Your task to perform on an android device: turn off smart reply in the gmail app Image 0: 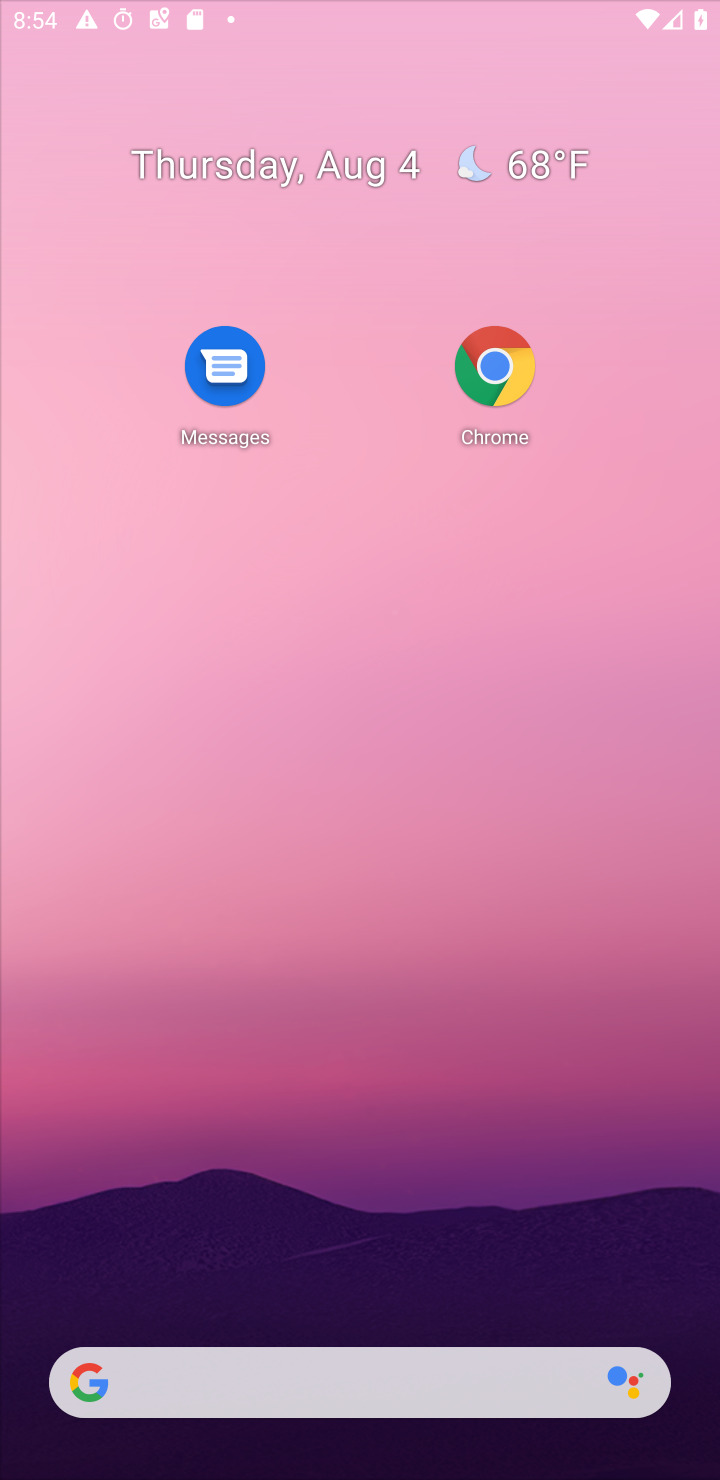
Step 0: press home button
Your task to perform on an android device: turn off smart reply in the gmail app Image 1: 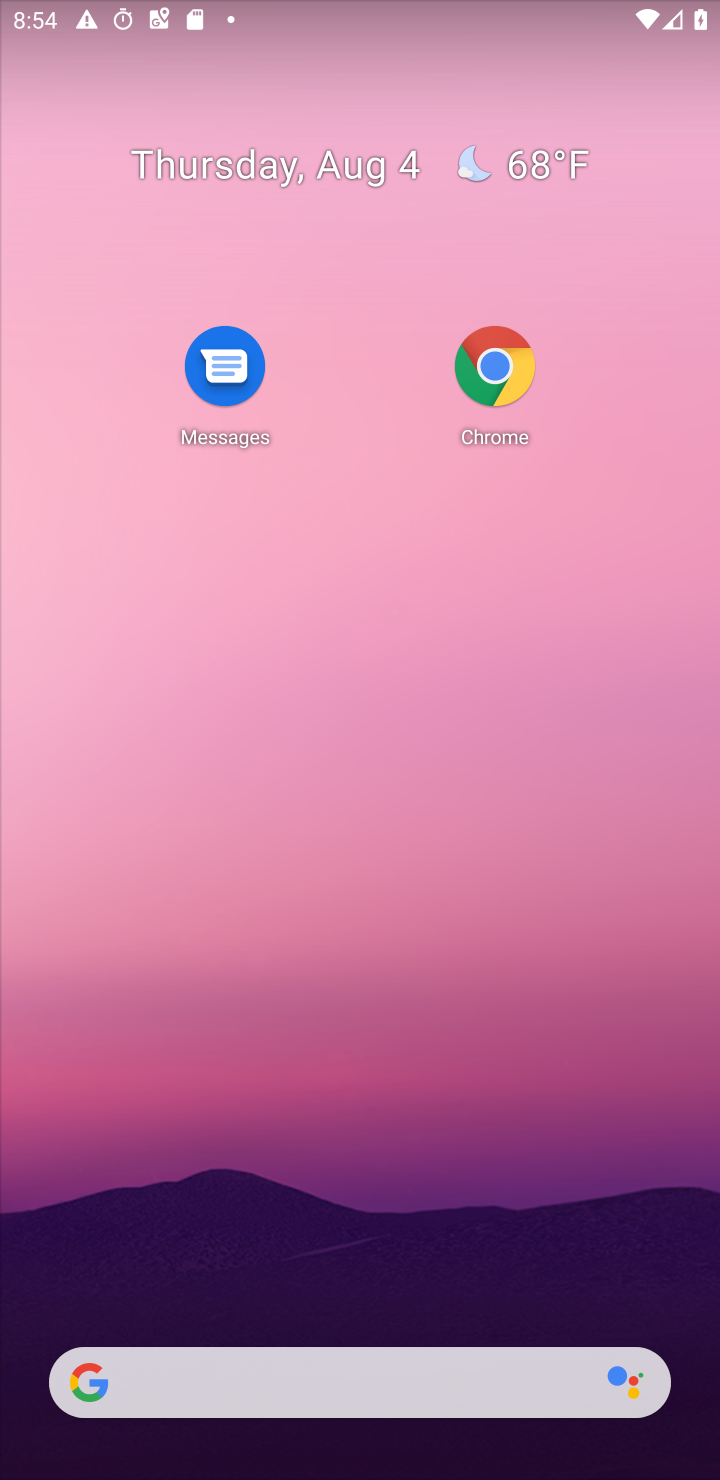
Step 1: drag from (472, 1417) to (385, 404)
Your task to perform on an android device: turn off smart reply in the gmail app Image 2: 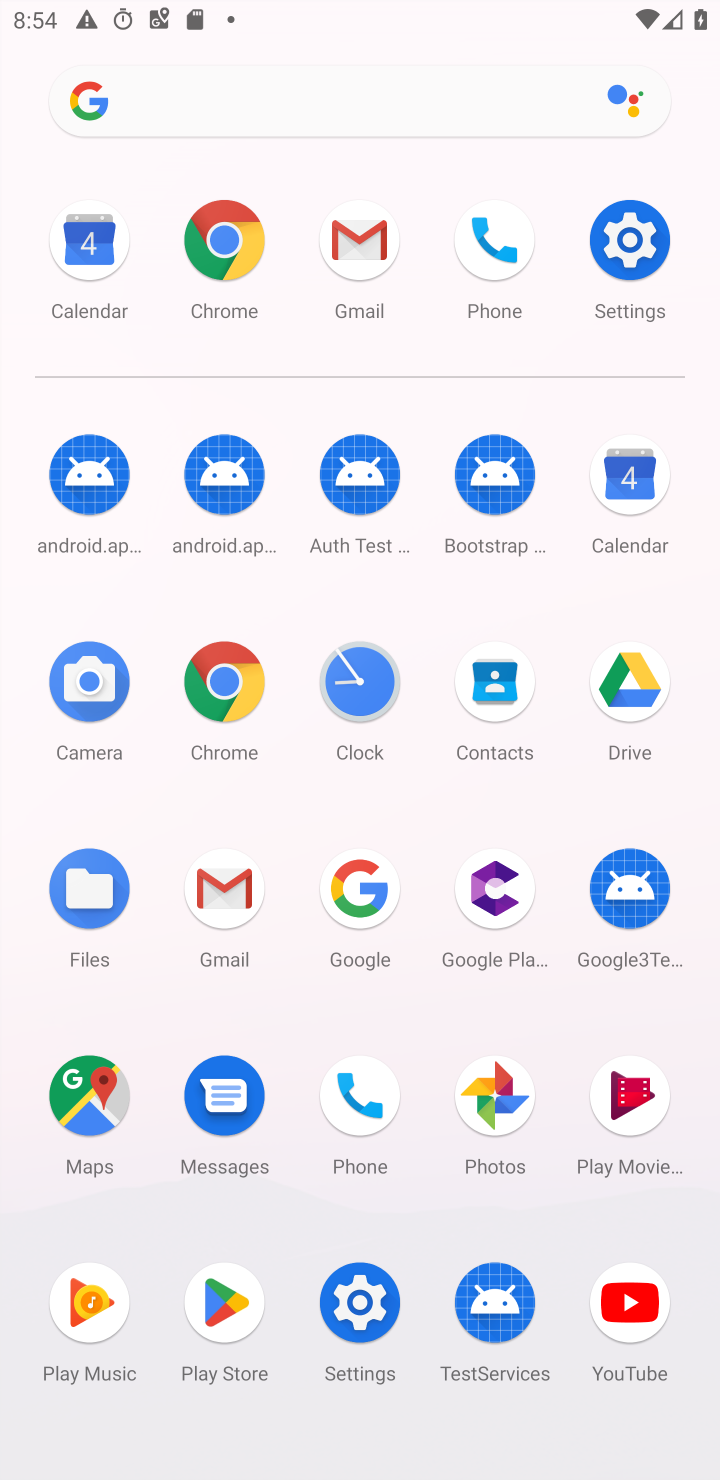
Step 2: click (343, 267)
Your task to perform on an android device: turn off smart reply in the gmail app Image 3: 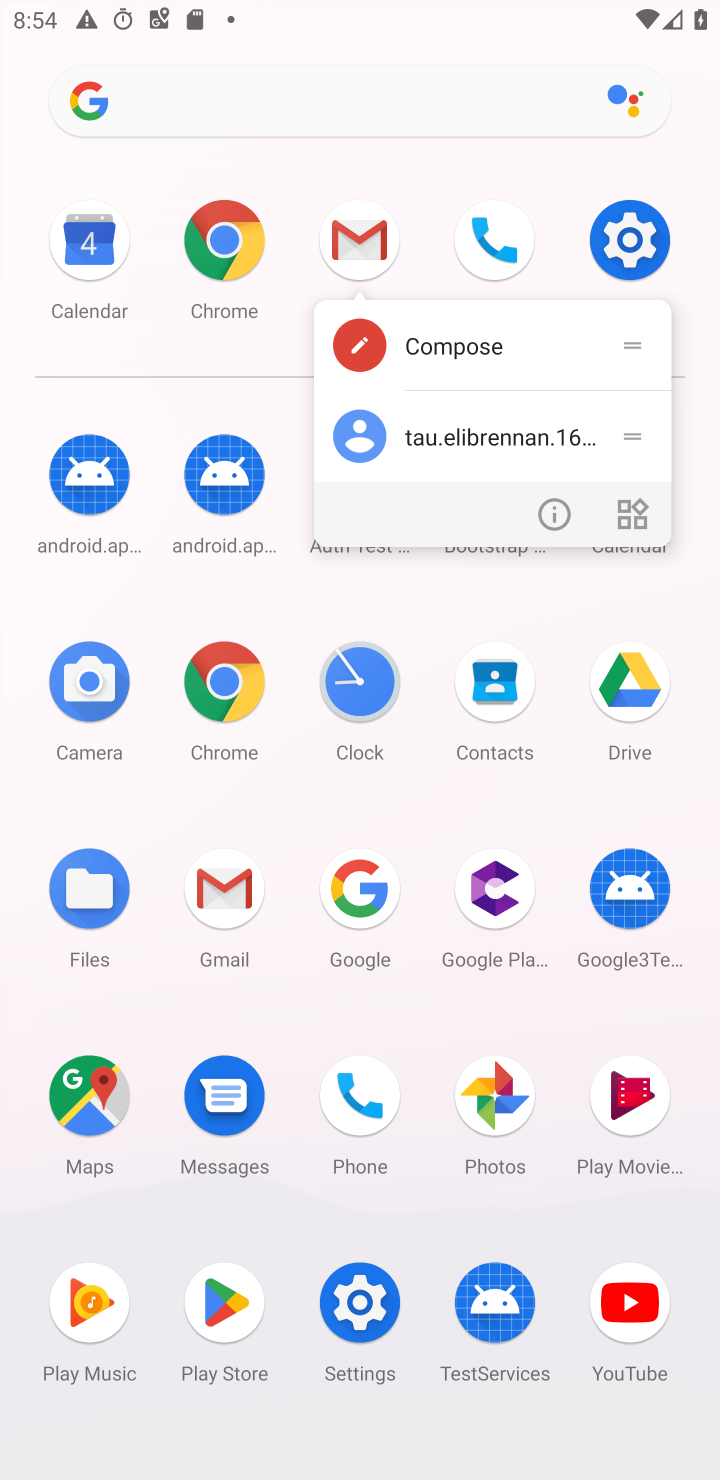
Step 3: click (362, 231)
Your task to perform on an android device: turn off smart reply in the gmail app Image 4: 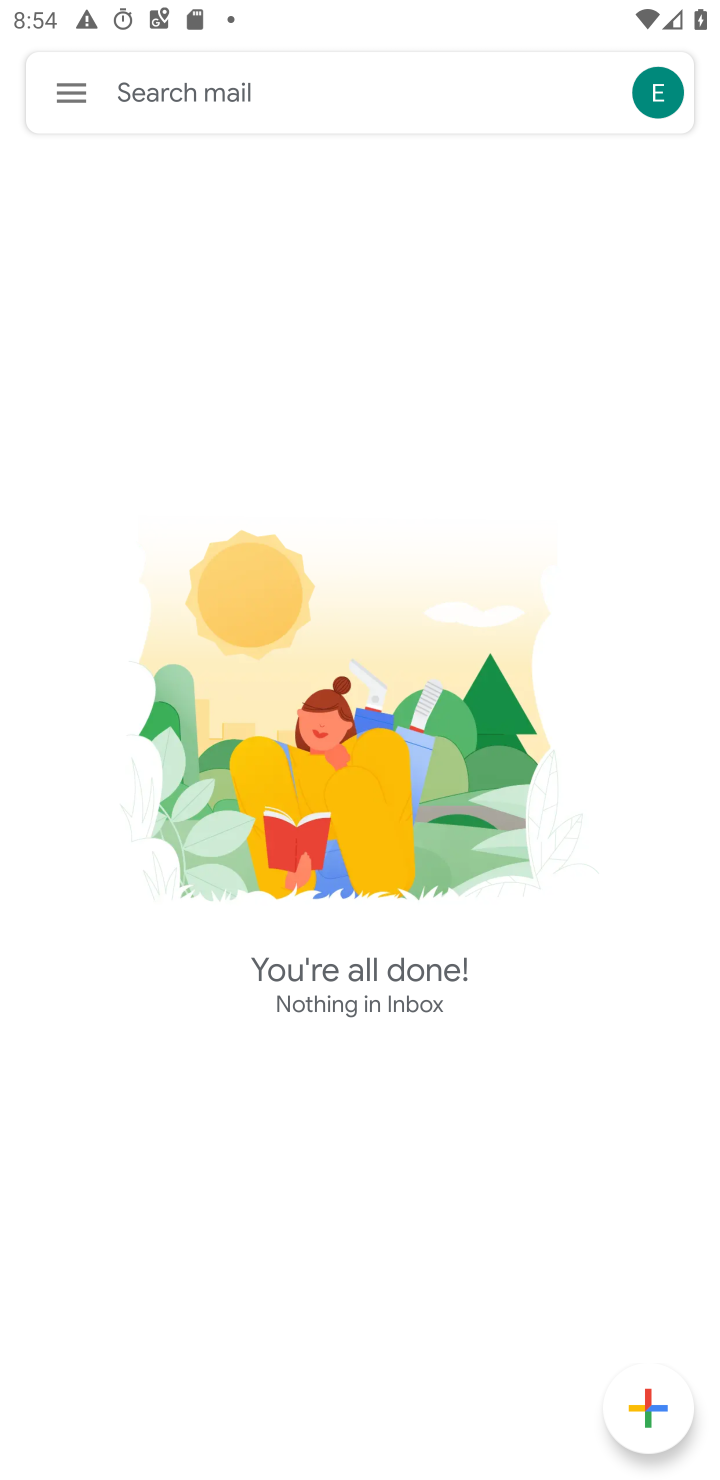
Step 4: click (66, 95)
Your task to perform on an android device: turn off smart reply in the gmail app Image 5: 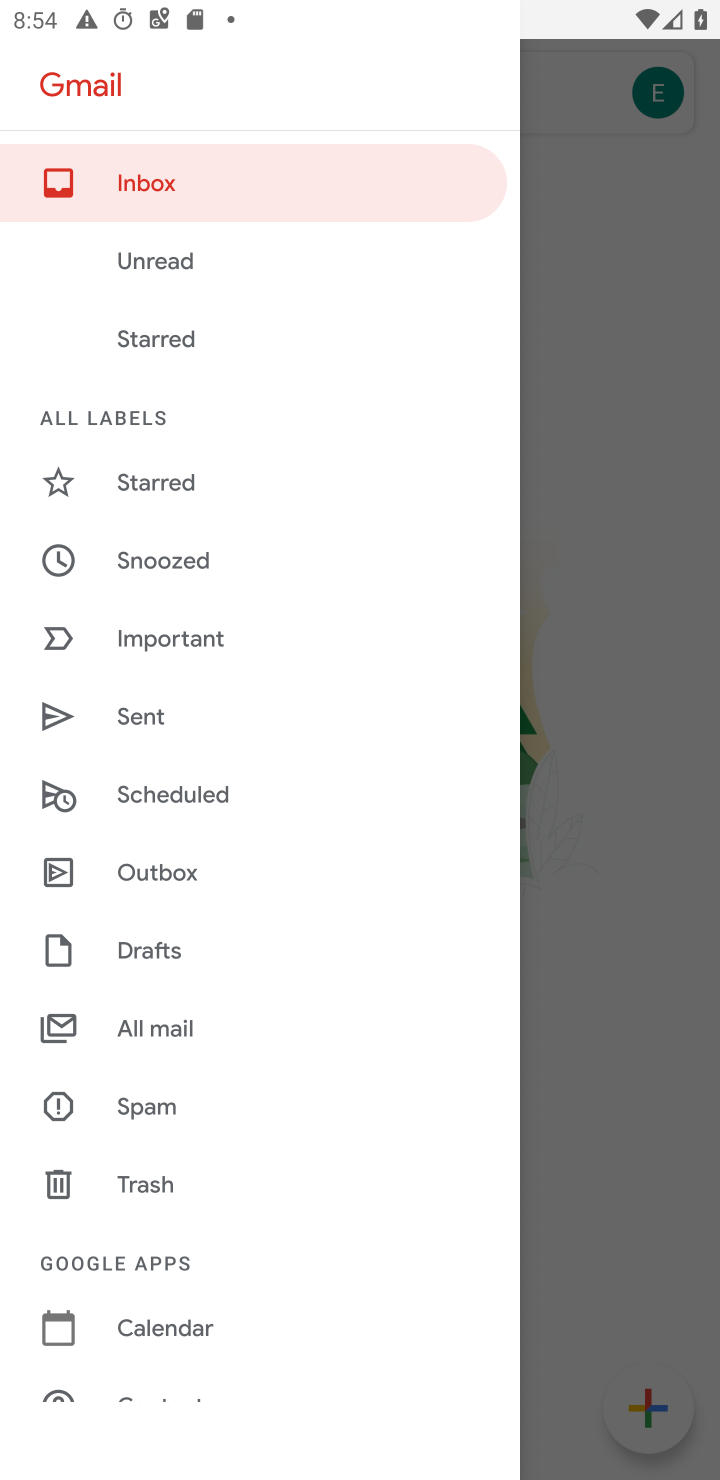
Step 5: drag from (208, 1285) to (260, 1006)
Your task to perform on an android device: turn off smart reply in the gmail app Image 6: 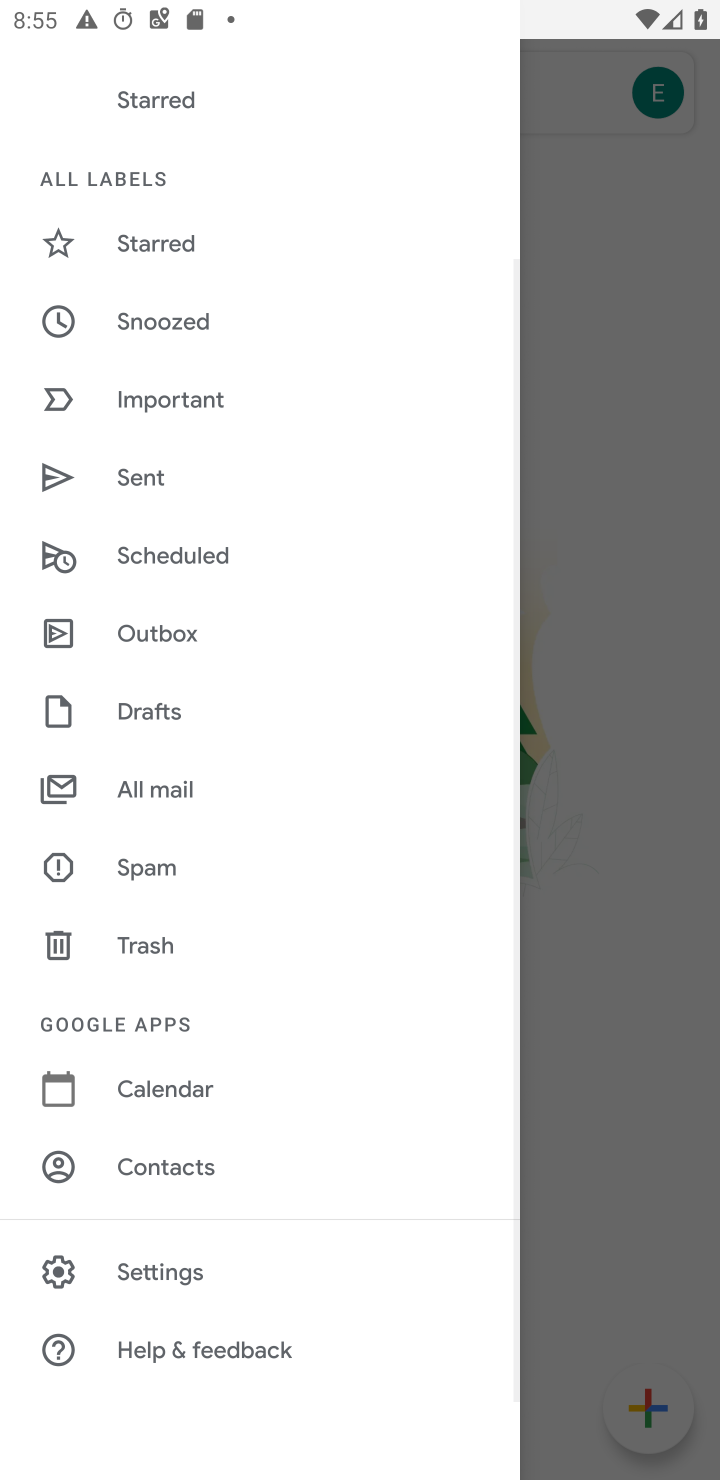
Step 6: click (180, 1313)
Your task to perform on an android device: turn off smart reply in the gmail app Image 7: 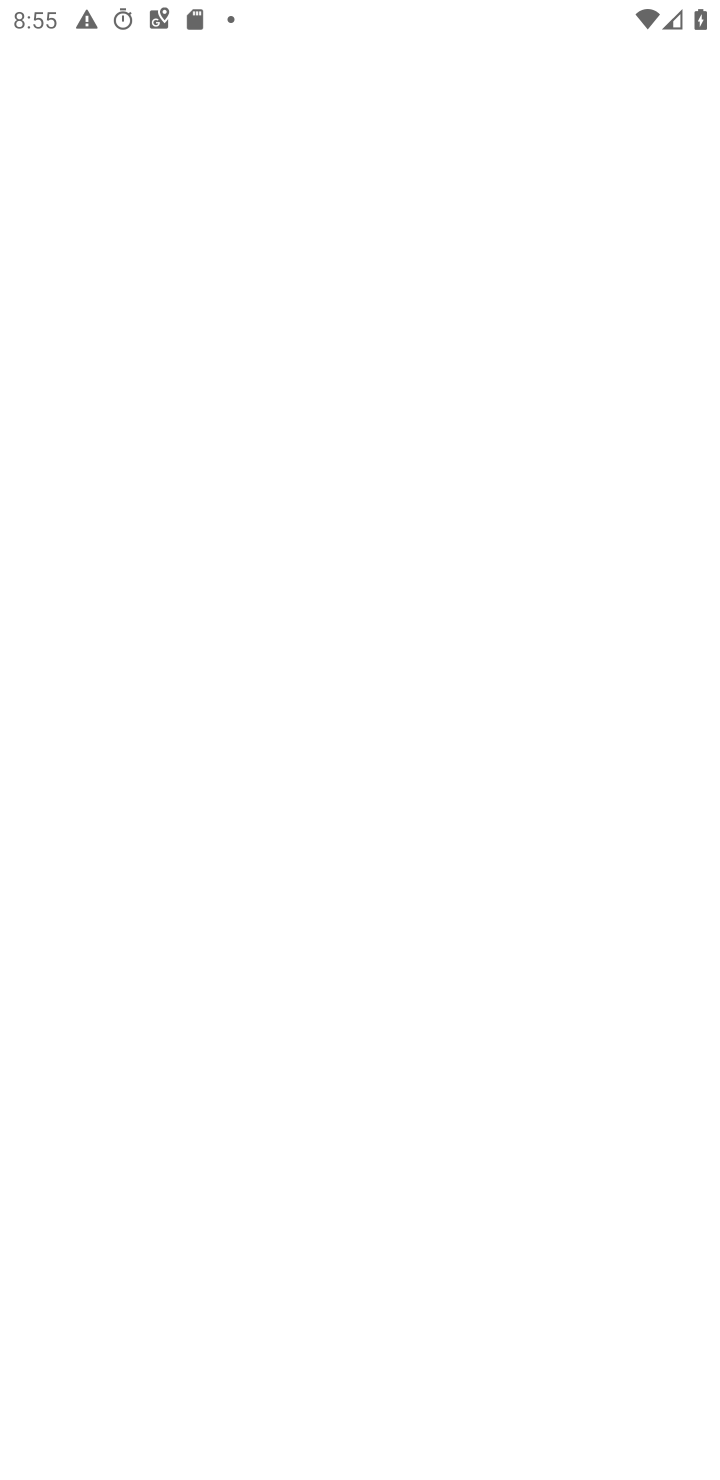
Step 7: click (74, 94)
Your task to perform on an android device: turn off smart reply in the gmail app Image 8: 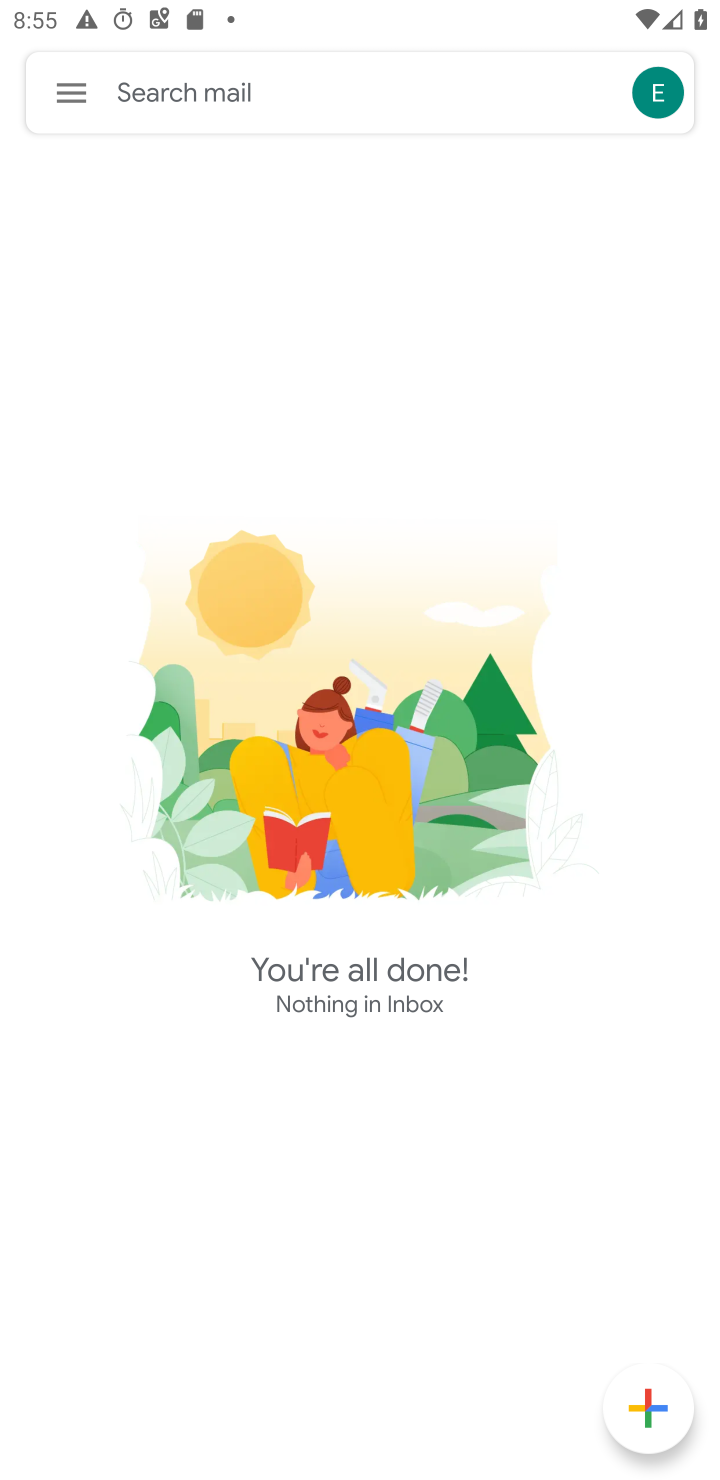
Step 8: click (76, 96)
Your task to perform on an android device: turn off smart reply in the gmail app Image 9: 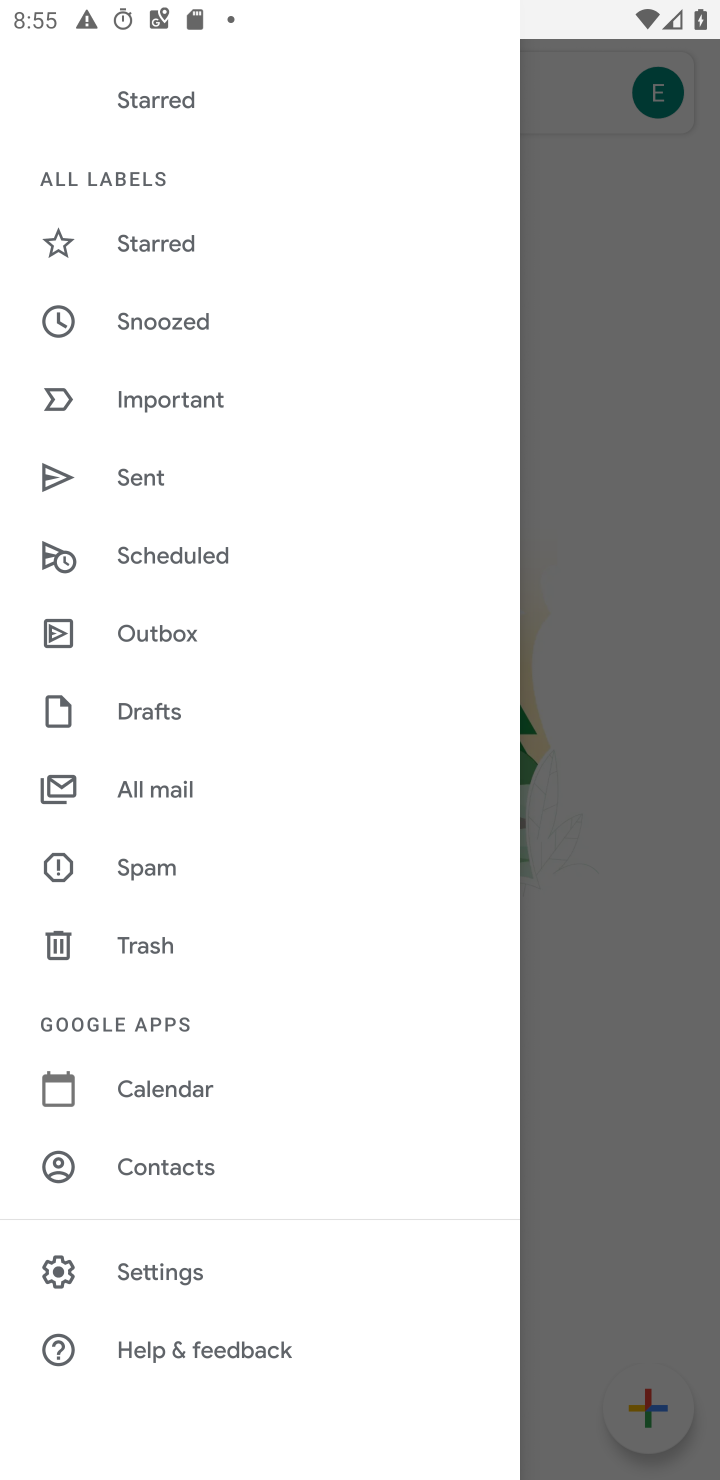
Step 9: click (213, 1258)
Your task to perform on an android device: turn off smart reply in the gmail app Image 10: 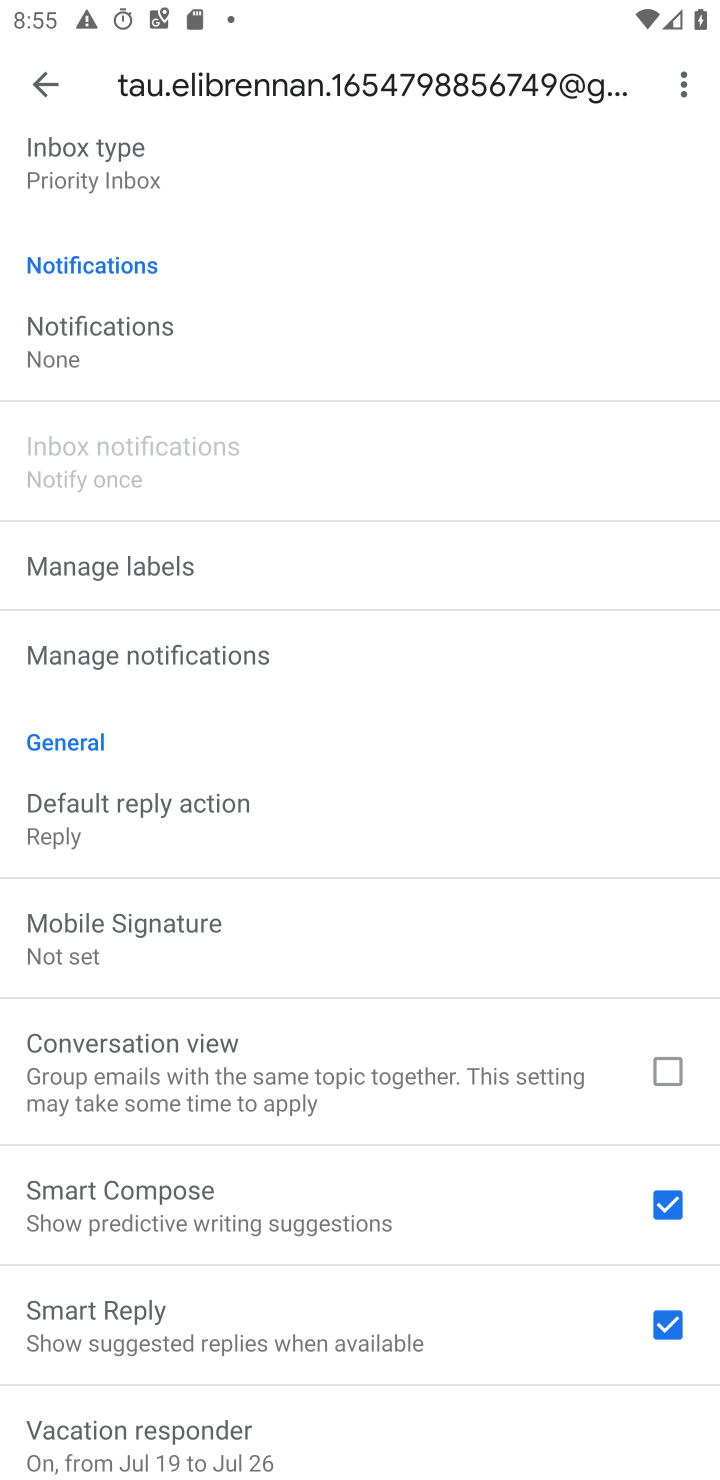
Step 10: click (338, 1309)
Your task to perform on an android device: turn off smart reply in the gmail app Image 11: 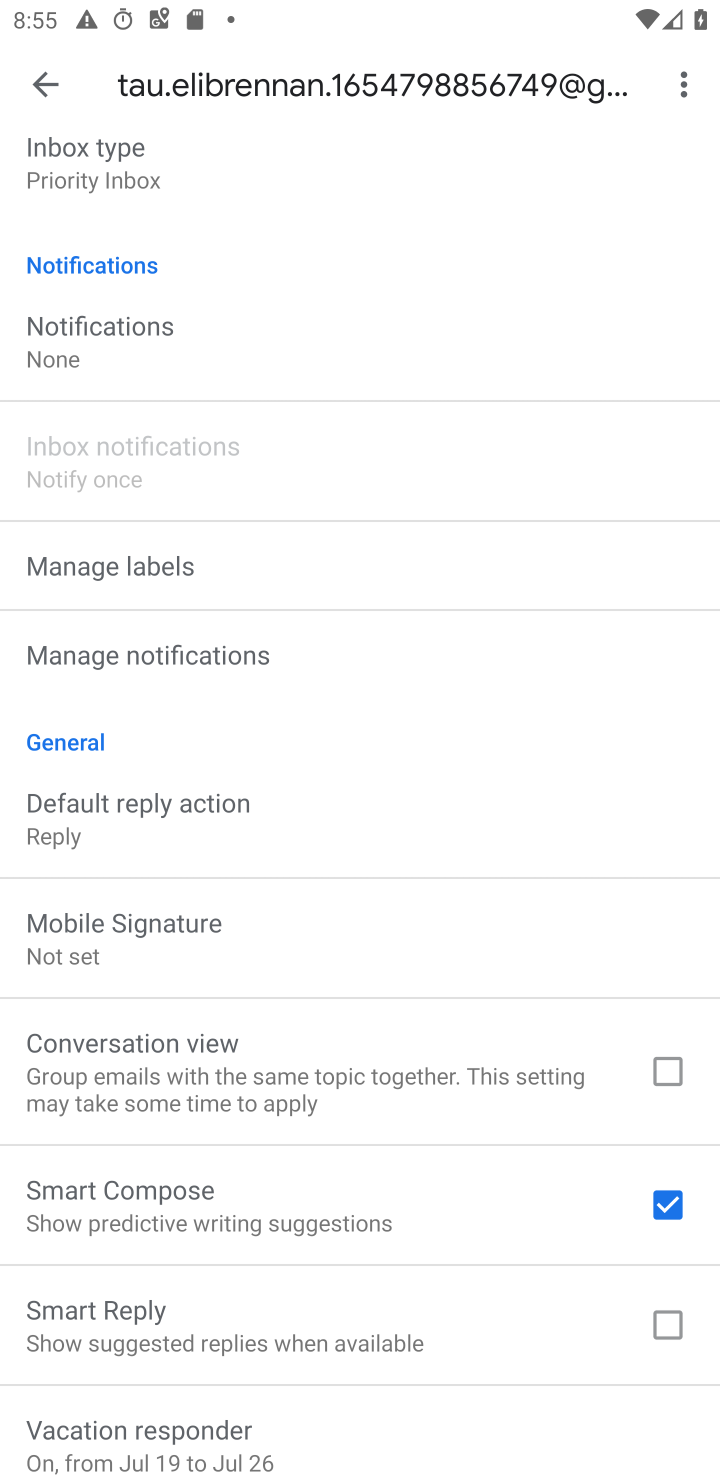
Step 11: task complete